Your task to perform on an android device: check storage Image 0: 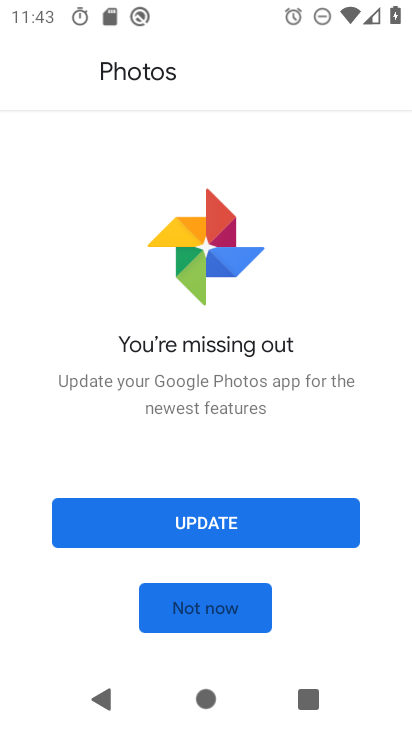
Step 0: press home button
Your task to perform on an android device: check storage Image 1: 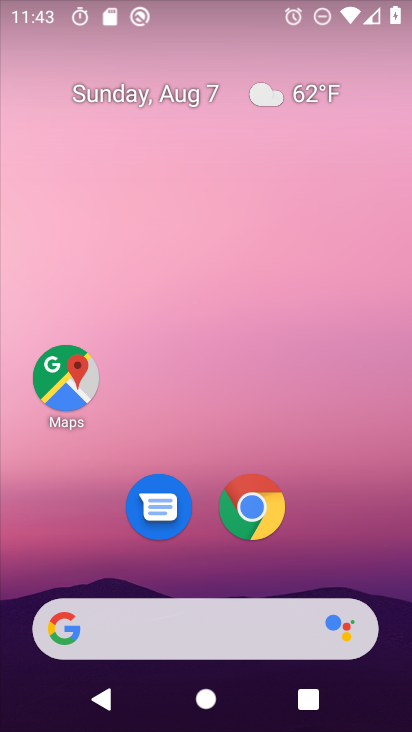
Step 1: drag from (372, 552) to (288, 38)
Your task to perform on an android device: check storage Image 2: 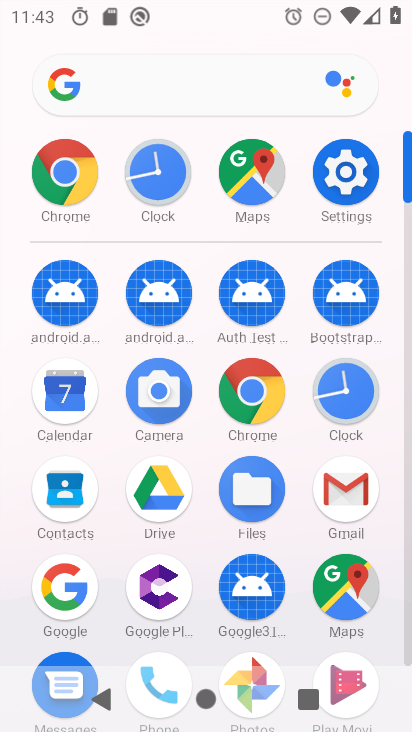
Step 2: click (349, 165)
Your task to perform on an android device: check storage Image 3: 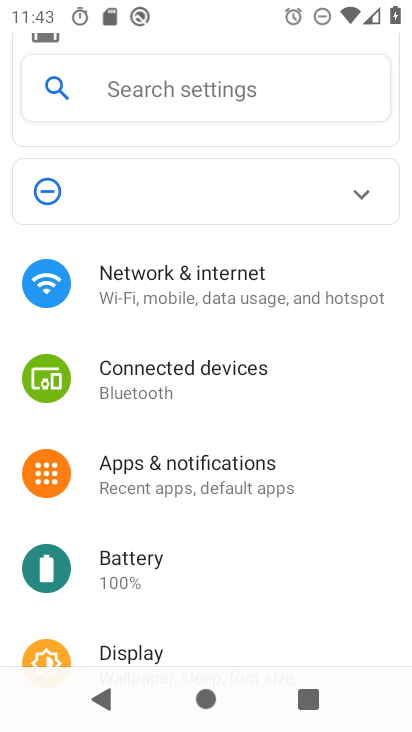
Step 3: drag from (229, 629) to (307, 240)
Your task to perform on an android device: check storage Image 4: 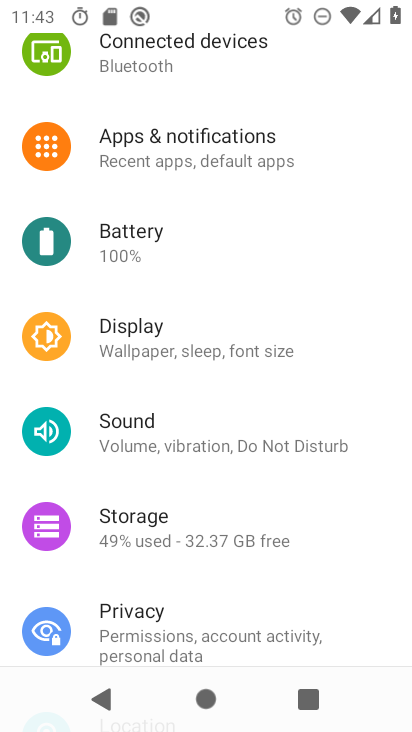
Step 4: click (123, 512)
Your task to perform on an android device: check storage Image 5: 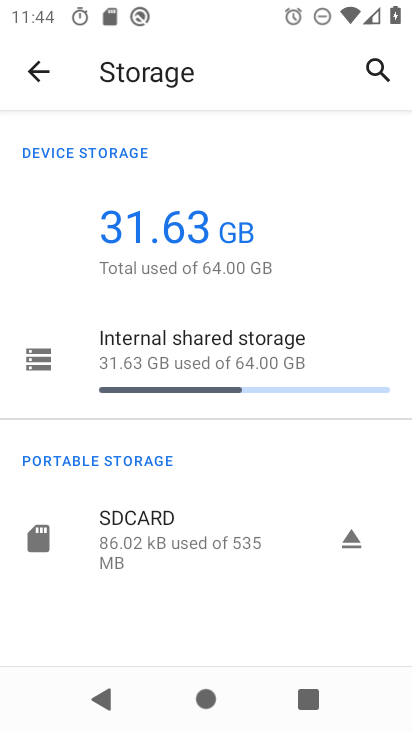
Step 5: task complete